Your task to perform on an android device: change the clock display to show seconds Image 0: 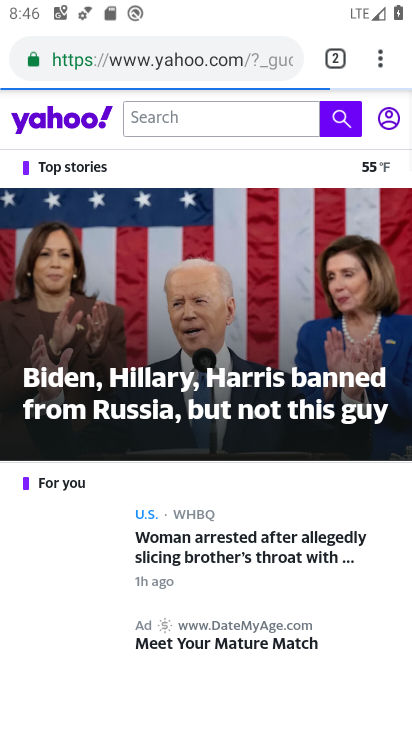
Step 0: press home button
Your task to perform on an android device: change the clock display to show seconds Image 1: 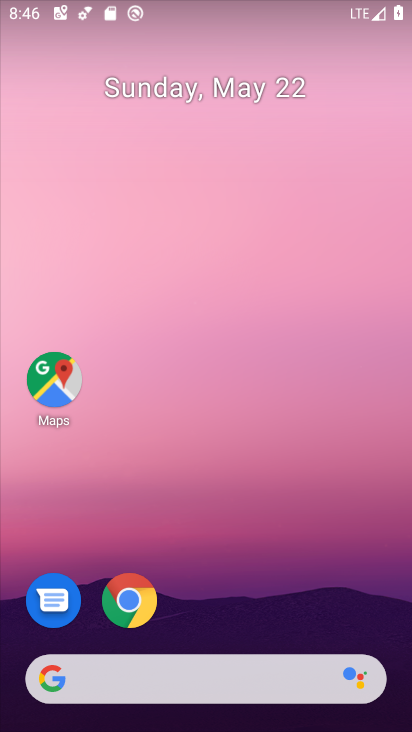
Step 1: click (300, 227)
Your task to perform on an android device: change the clock display to show seconds Image 2: 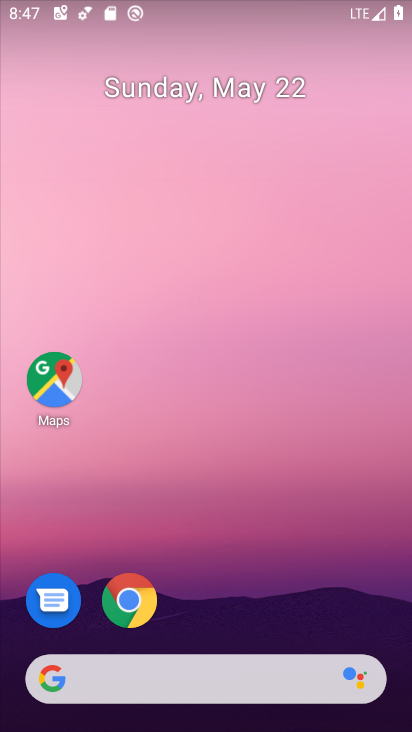
Step 2: drag from (185, 555) to (196, 383)
Your task to perform on an android device: change the clock display to show seconds Image 3: 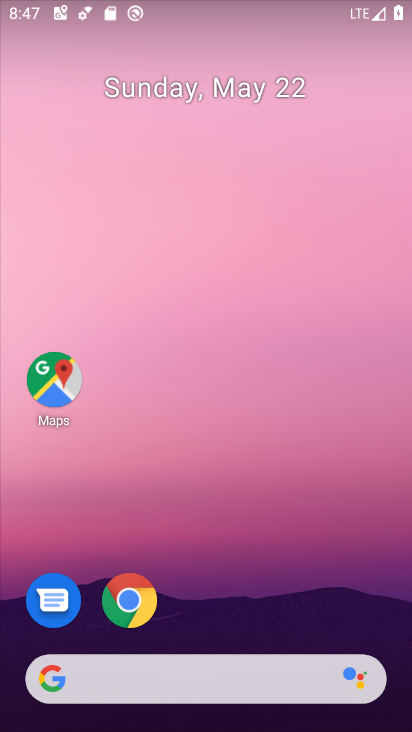
Step 3: drag from (207, 650) to (283, 248)
Your task to perform on an android device: change the clock display to show seconds Image 4: 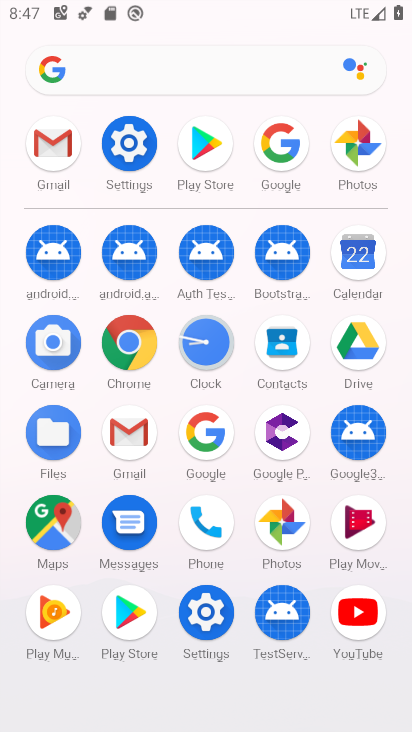
Step 4: click (197, 359)
Your task to perform on an android device: change the clock display to show seconds Image 5: 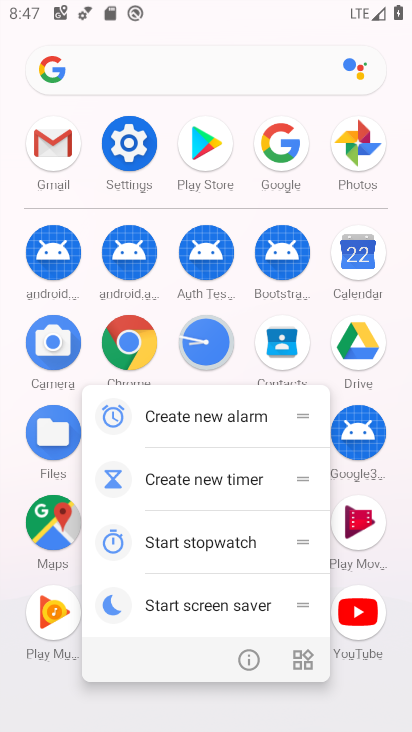
Step 5: click (196, 362)
Your task to perform on an android device: change the clock display to show seconds Image 6: 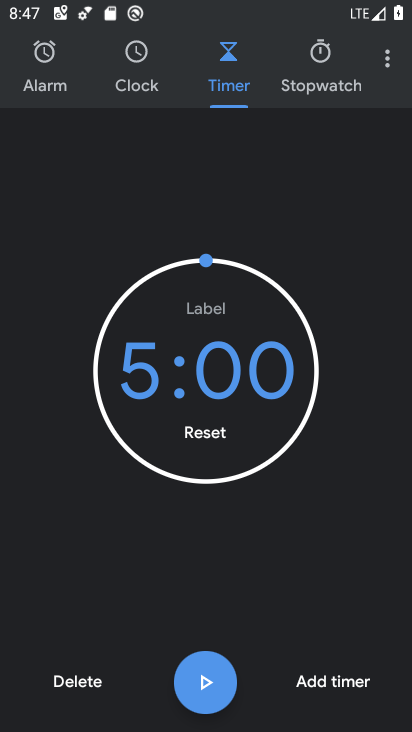
Step 6: click (374, 62)
Your task to perform on an android device: change the clock display to show seconds Image 7: 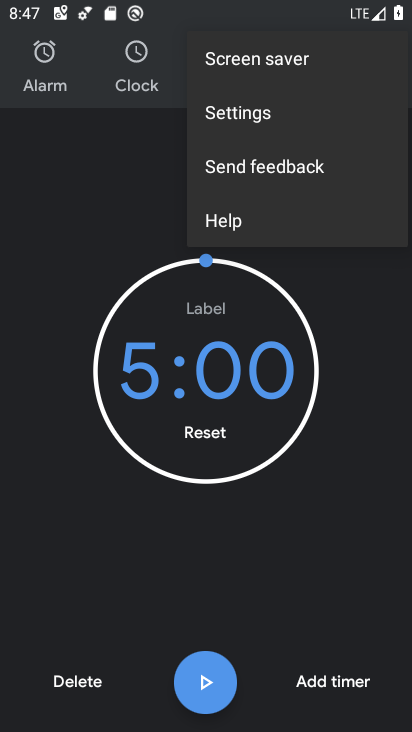
Step 7: click (246, 113)
Your task to perform on an android device: change the clock display to show seconds Image 8: 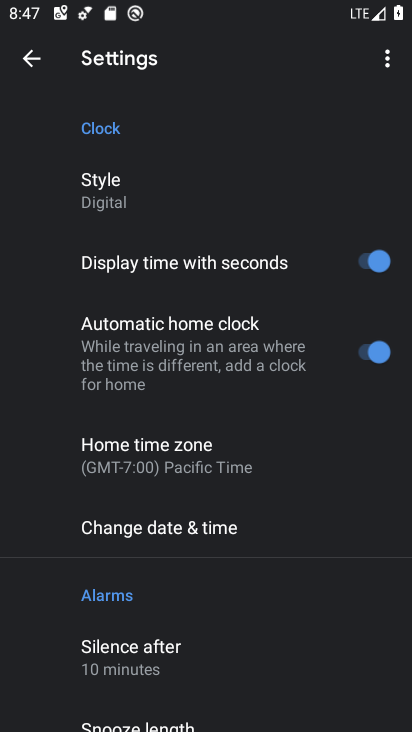
Step 8: task complete